Your task to perform on an android device: What's the weather today? Image 0: 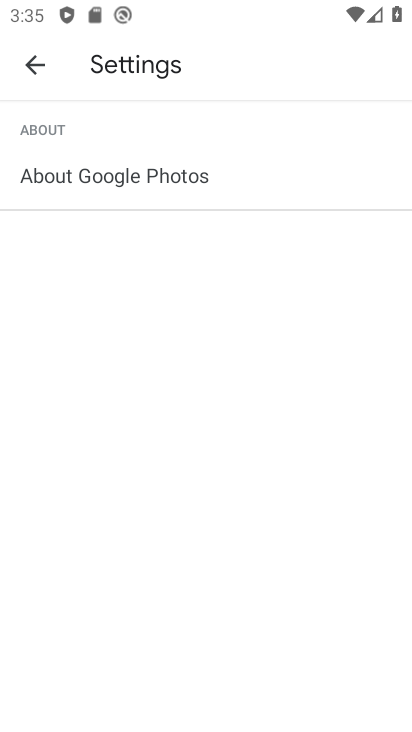
Step 0: press home button
Your task to perform on an android device: What's the weather today? Image 1: 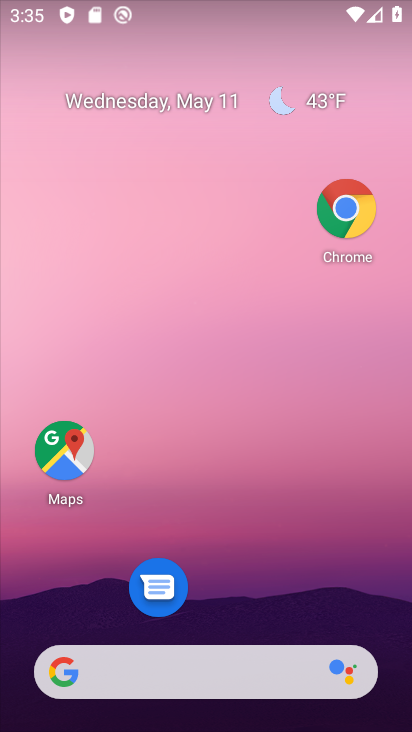
Step 1: click (263, 98)
Your task to perform on an android device: What's the weather today? Image 2: 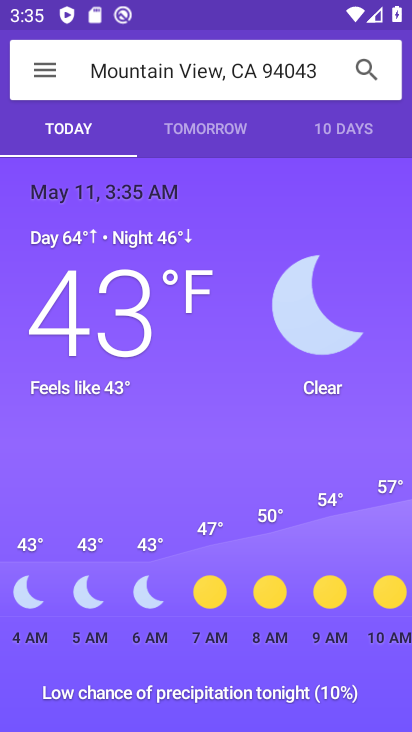
Step 2: task complete